Your task to perform on an android device: Open ESPN.com Image 0: 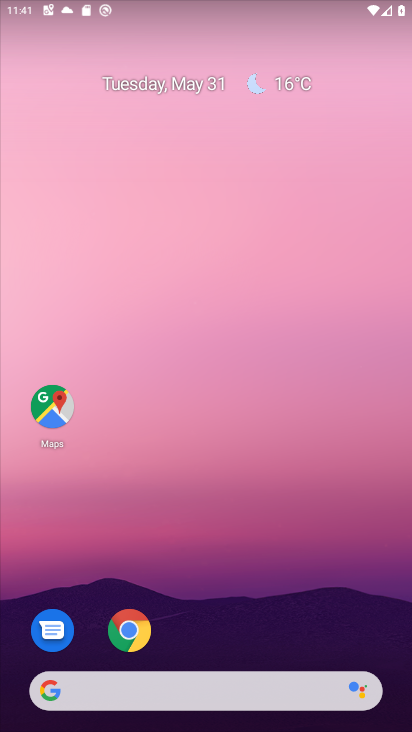
Step 0: click (129, 632)
Your task to perform on an android device: Open ESPN.com Image 1: 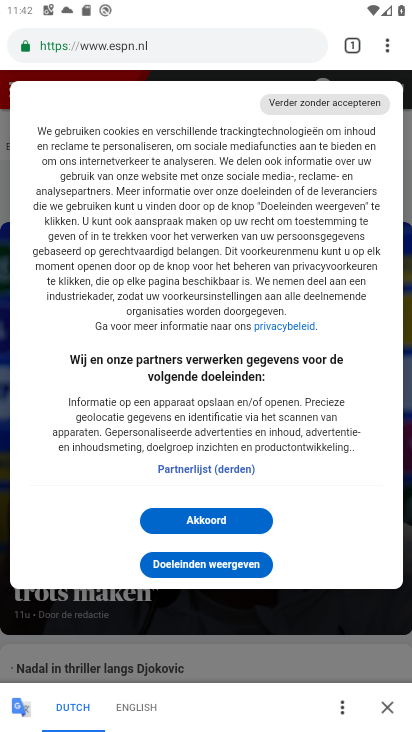
Step 1: task complete